Your task to perform on an android device: refresh tabs in the chrome app Image 0: 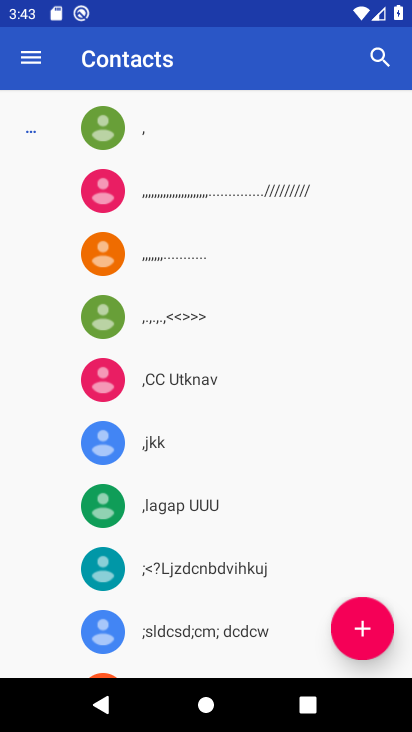
Step 0: press home button
Your task to perform on an android device: refresh tabs in the chrome app Image 1: 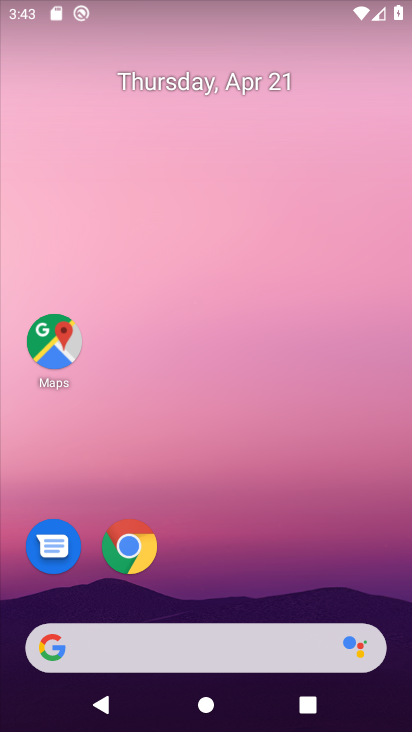
Step 1: click (129, 545)
Your task to perform on an android device: refresh tabs in the chrome app Image 2: 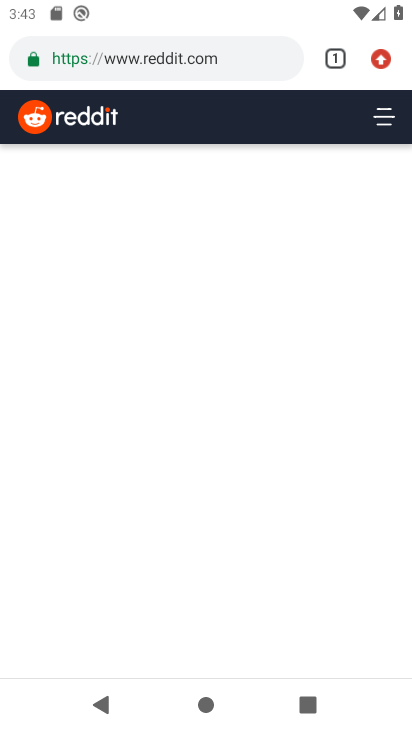
Step 2: click (381, 57)
Your task to perform on an android device: refresh tabs in the chrome app Image 3: 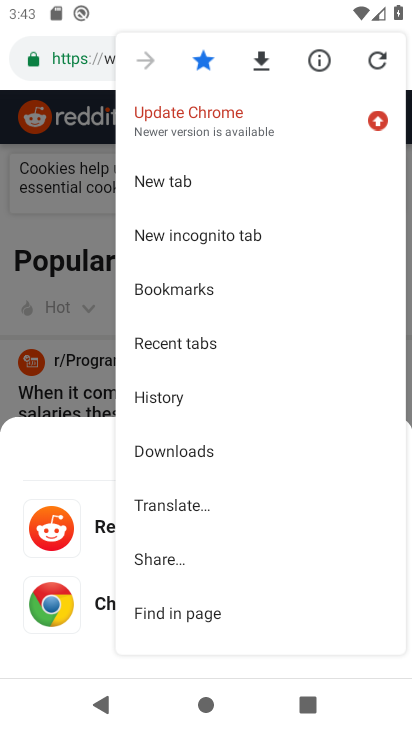
Step 3: click (381, 61)
Your task to perform on an android device: refresh tabs in the chrome app Image 4: 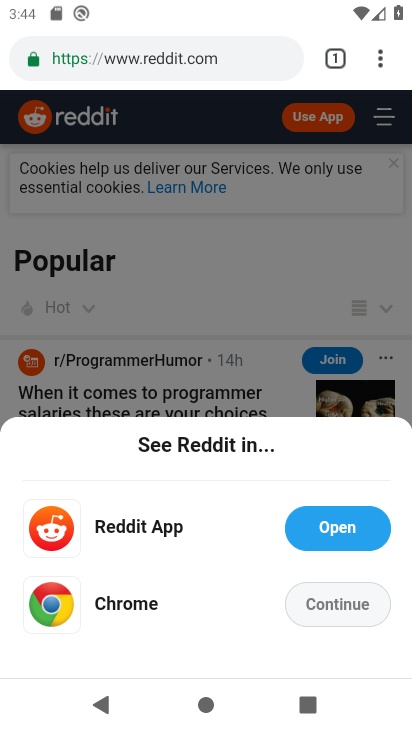
Step 4: task complete